Your task to perform on an android device: add a contact in the contacts app Image 0: 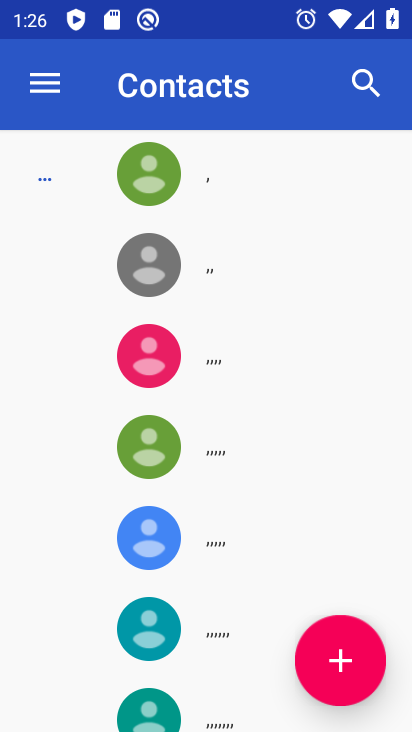
Step 0: press home button
Your task to perform on an android device: add a contact in the contacts app Image 1: 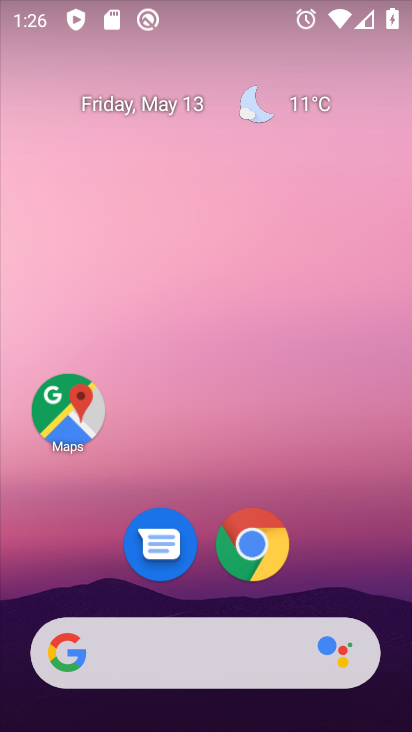
Step 1: drag from (216, 588) to (263, 182)
Your task to perform on an android device: add a contact in the contacts app Image 2: 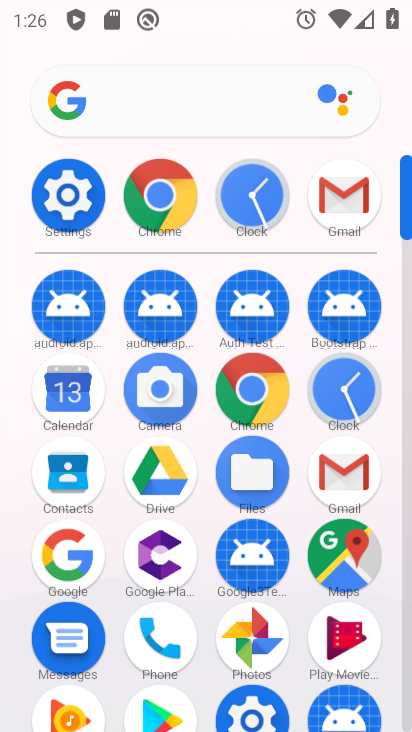
Step 2: click (69, 470)
Your task to perform on an android device: add a contact in the contacts app Image 3: 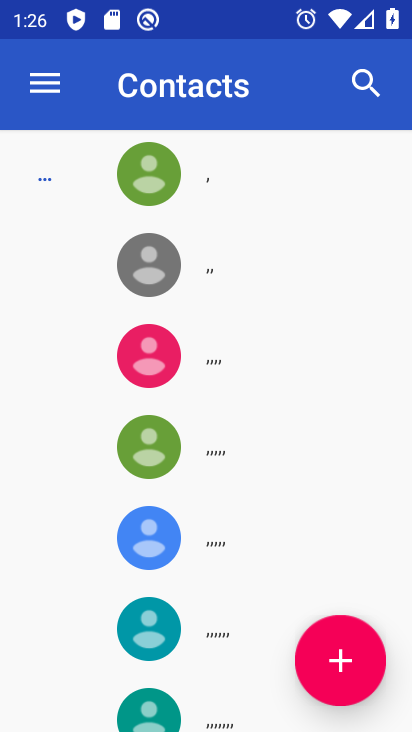
Step 3: click (336, 665)
Your task to perform on an android device: add a contact in the contacts app Image 4: 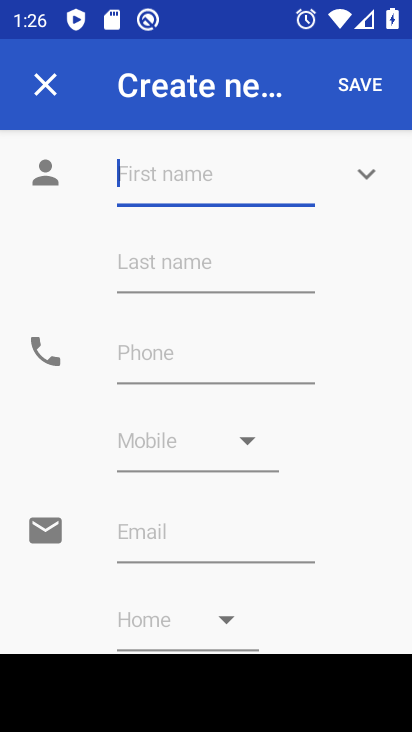
Step 4: type "gfygh"
Your task to perform on an android device: add a contact in the contacts app Image 5: 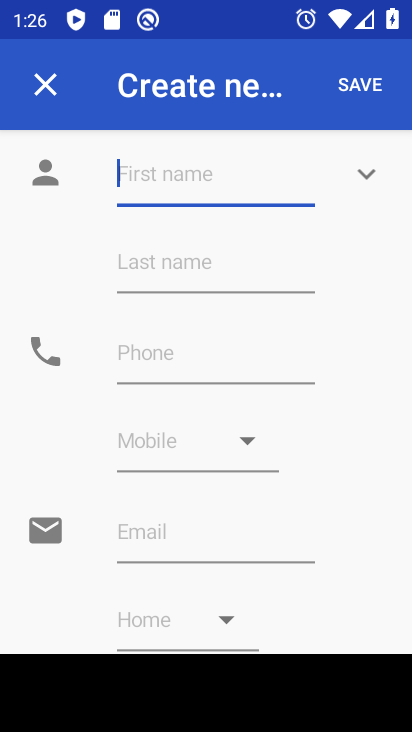
Step 5: click (172, 264)
Your task to perform on an android device: add a contact in the contacts app Image 6: 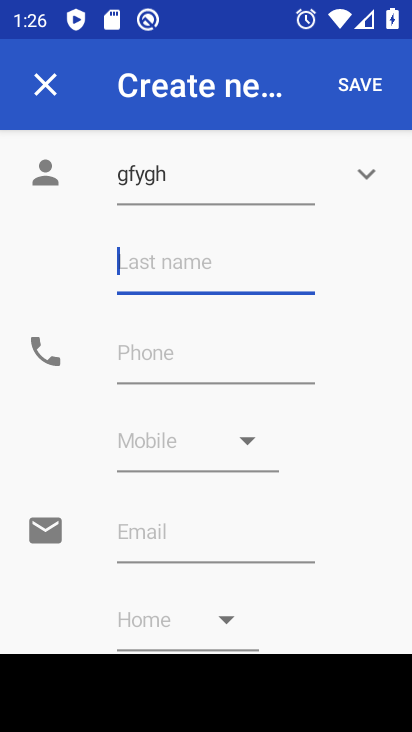
Step 6: type "hvjj"
Your task to perform on an android device: add a contact in the contacts app Image 7: 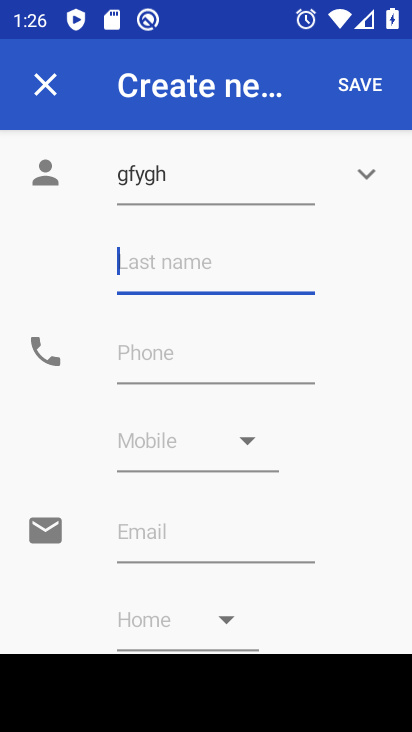
Step 7: click (191, 359)
Your task to perform on an android device: add a contact in the contacts app Image 8: 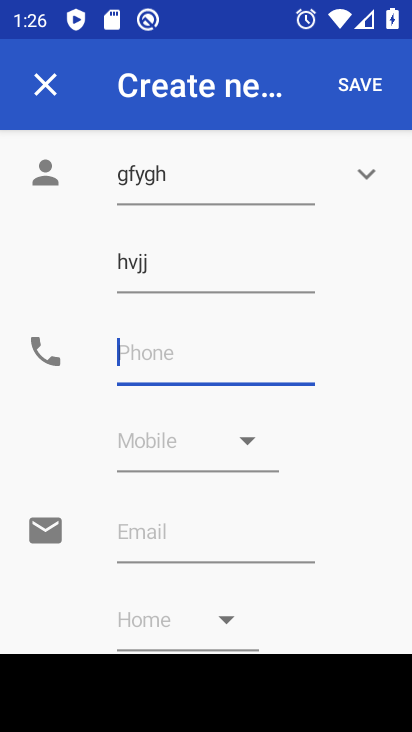
Step 8: type "676767"
Your task to perform on an android device: add a contact in the contacts app Image 9: 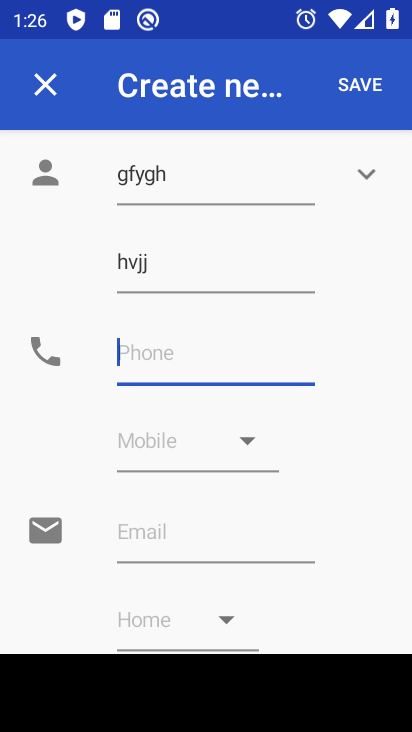
Step 9: click (180, 436)
Your task to perform on an android device: add a contact in the contacts app Image 10: 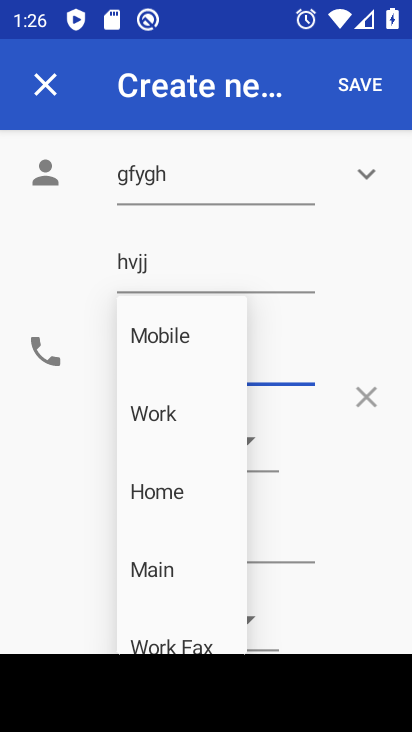
Step 10: click (364, 79)
Your task to perform on an android device: add a contact in the contacts app Image 11: 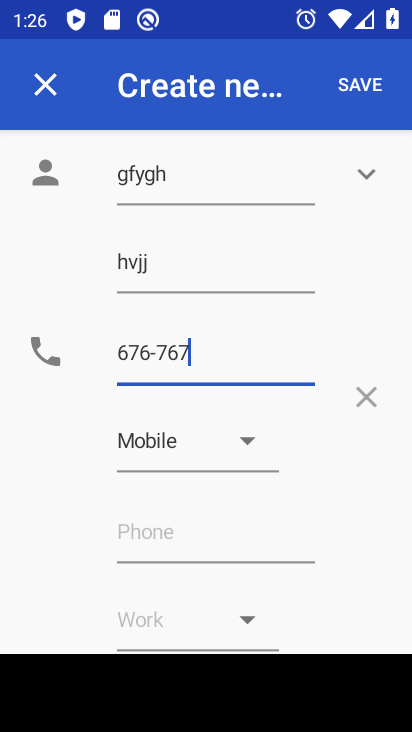
Step 11: click (365, 81)
Your task to perform on an android device: add a contact in the contacts app Image 12: 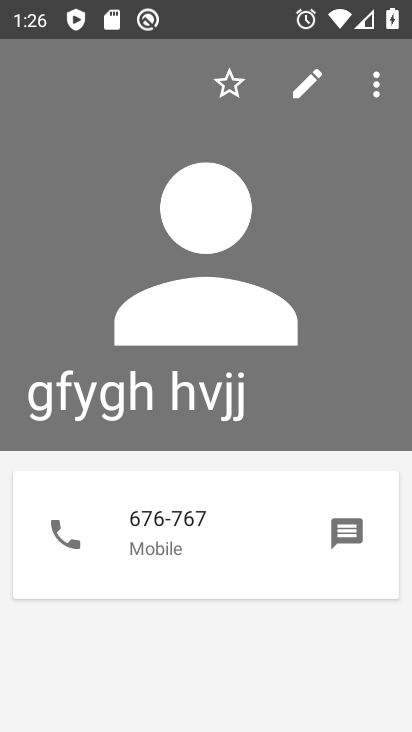
Step 12: task complete